Your task to perform on an android device: turn vacation reply on in the gmail app Image 0: 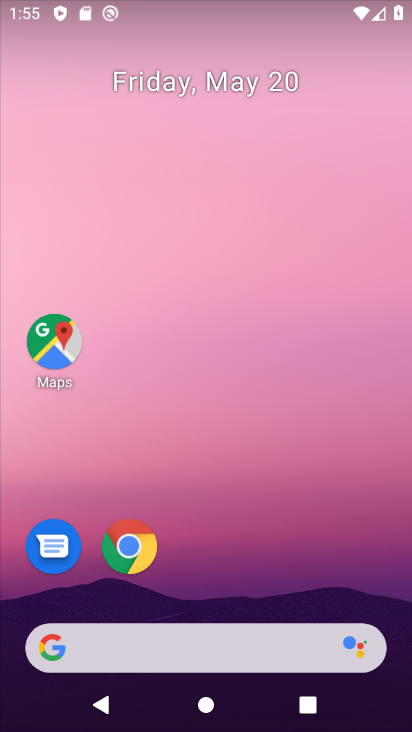
Step 0: drag from (284, 507) to (257, 16)
Your task to perform on an android device: turn vacation reply on in the gmail app Image 1: 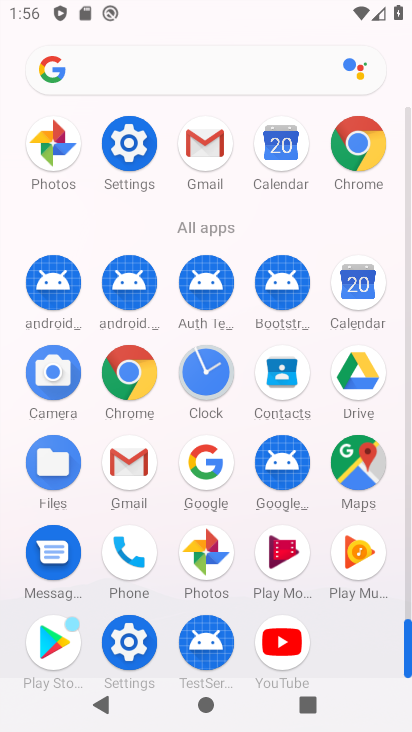
Step 1: drag from (17, 546) to (27, 241)
Your task to perform on an android device: turn vacation reply on in the gmail app Image 2: 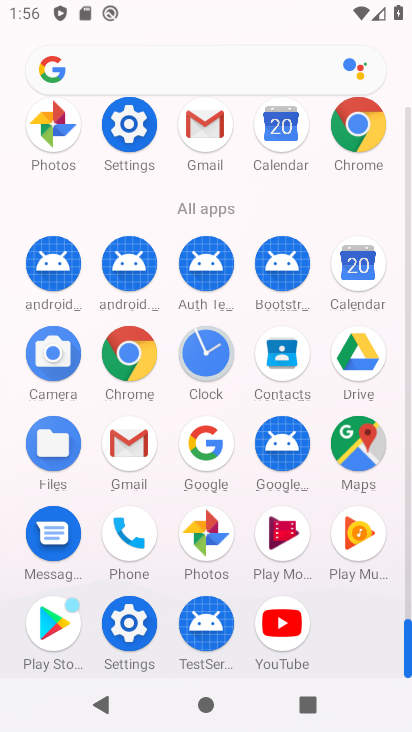
Step 2: click (125, 439)
Your task to perform on an android device: turn vacation reply on in the gmail app Image 3: 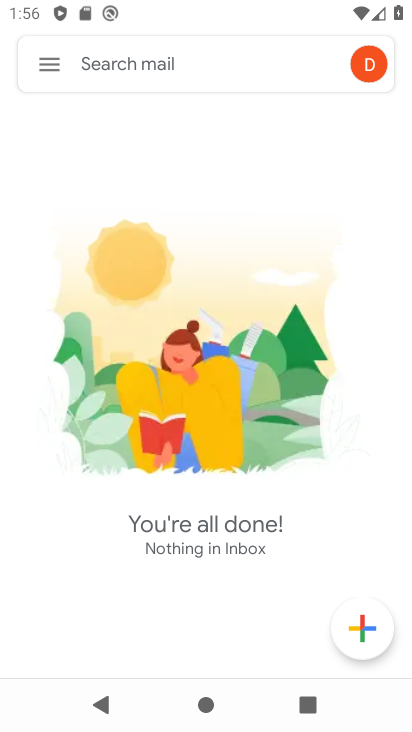
Step 3: click (46, 65)
Your task to perform on an android device: turn vacation reply on in the gmail app Image 4: 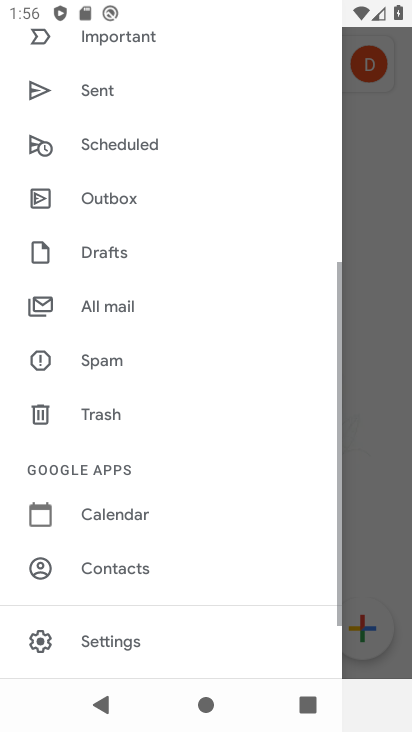
Step 4: drag from (165, 606) to (200, 156)
Your task to perform on an android device: turn vacation reply on in the gmail app Image 5: 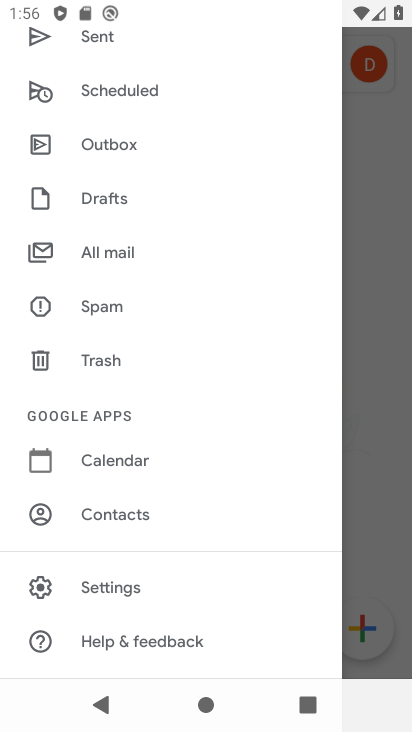
Step 5: click (114, 585)
Your task to perform on an android device: turn vacation reply on in the gmail app Image 6: 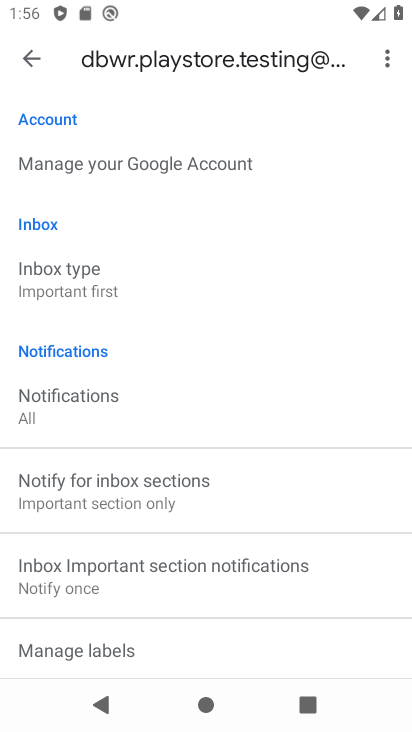
Step 6: drag from (236, 633) to (255, 177)
Your task to perform on an android device: turn vacation reply on in the gmail app Image 7: 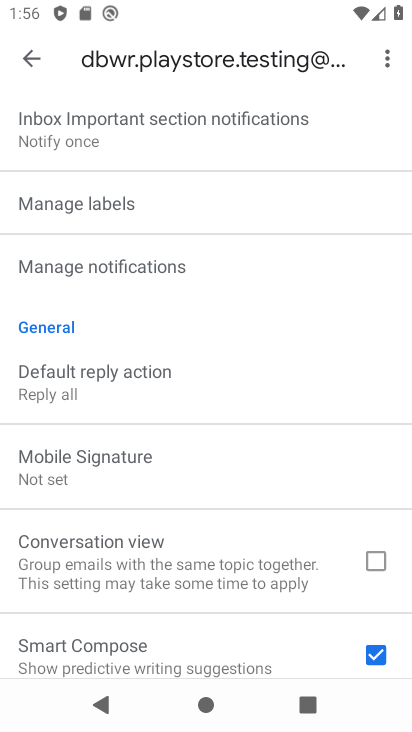
Step 7: drag from (208, 566) to (251, 137)
Your task to perform on an android device: turn vacation reply on in the gmail app Image 8: 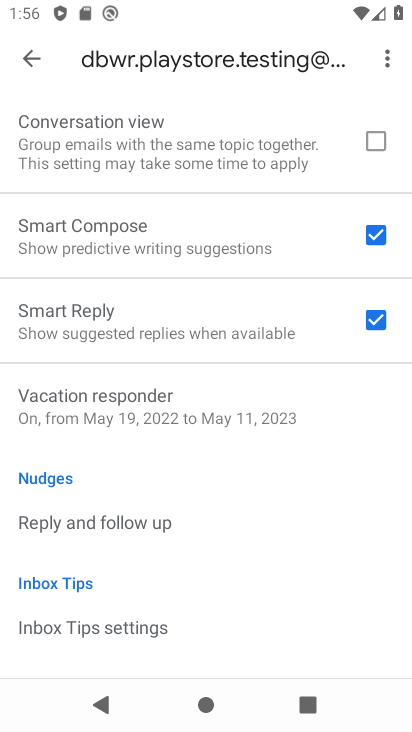
Step 8: drag from (194, 509) to (233, 203)
Your task to perform on an android device: turn vacation reply on in the gmail app Image 9: 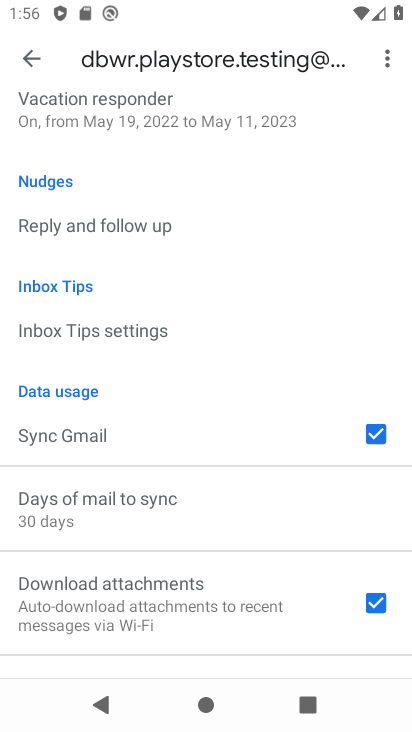
Step 9: drag from (193, 600) to (184, 143)
Your task to perform on an android device: turn vacation reply on in the gmail app Image 10: 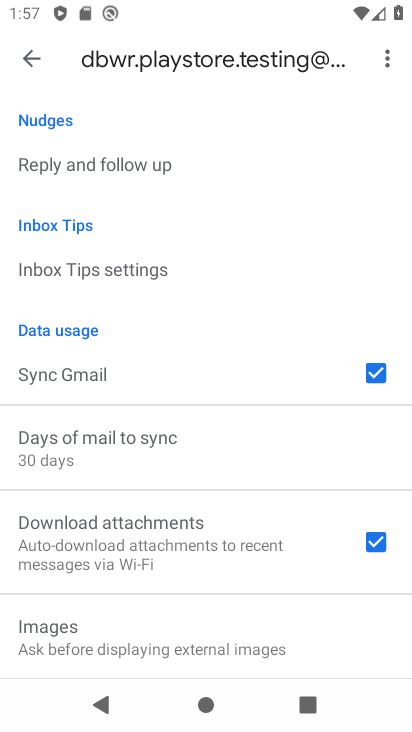
Step 10: drag from (189, 571) to (184, 302)
Your task to perform on an android device: turn vacation reply on in the gmail app Image 11: 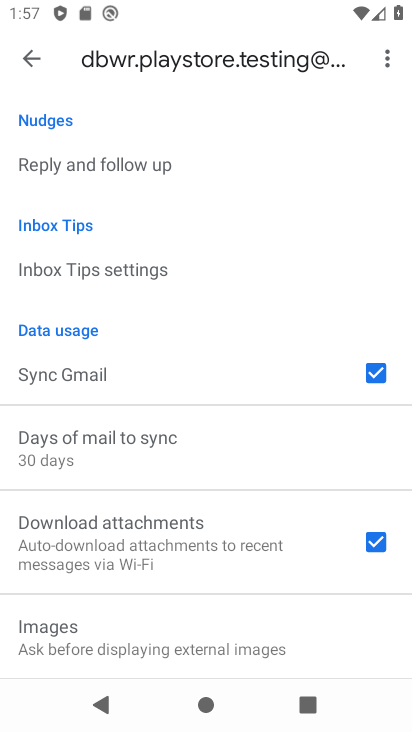
Step 11: drag from (178, 663) to (239, 182)
Your task to perform on an android device: turn vacation reply on in the gmail app Image 12: 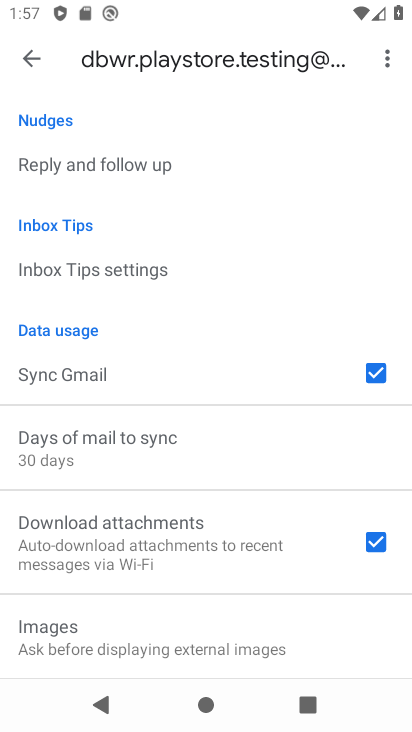
Step 12: drag from (195, 274) to (199, 687)
Your task to perform on an android device: turn vacation reply on in the gmail app Image 13: 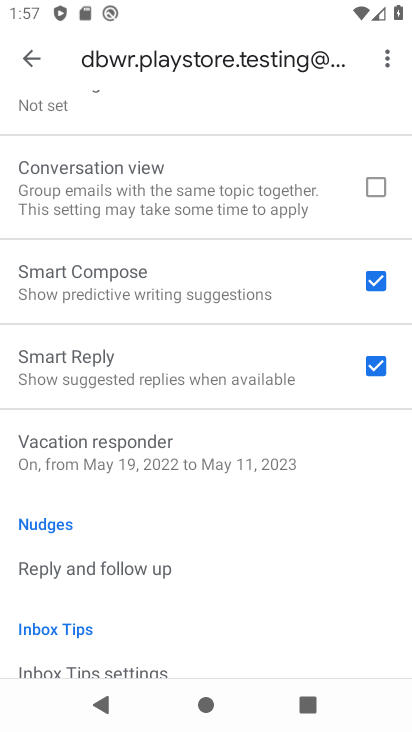
Step 13: click (124, 440)
Your task to perform on an android device: turn vacation reply on in the gmail app Image 14: 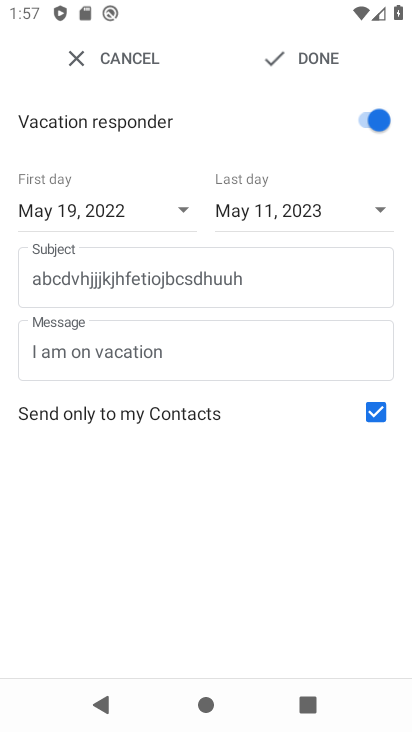
Step 14: click (276, 60)
Your task to perform on an android device: turn vacation reply on in the gmail app Image 15: 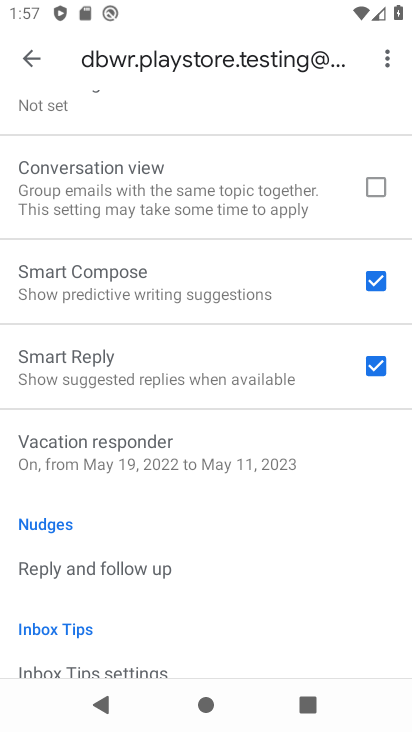
Step 15: task complete